Your task to perform on an android device: Open Yahoo.com Image 0: 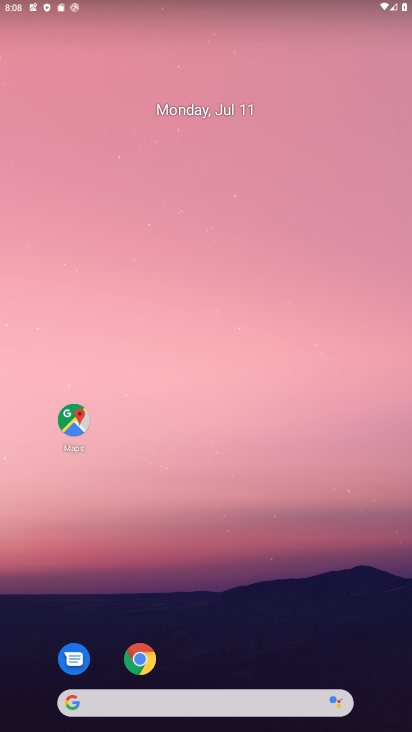
Step 0: drag from (171, 666) to (259, 184)
Your task to perform on an android device: Open Yahoo.com Image 1: 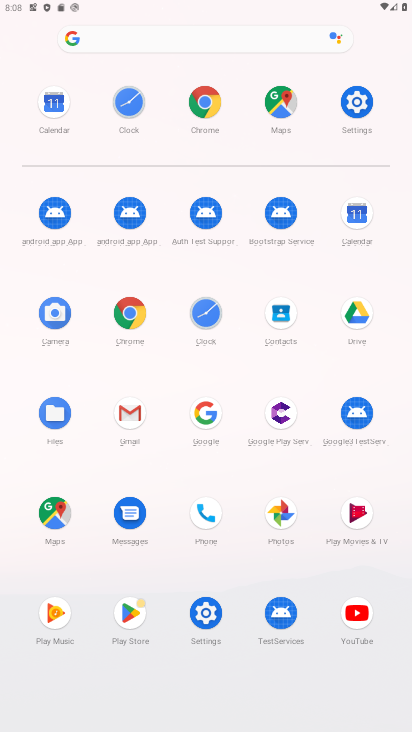
Step 1: click (198, 98)
Your task to perform on an android device: Open Yahoo.com Image 2: 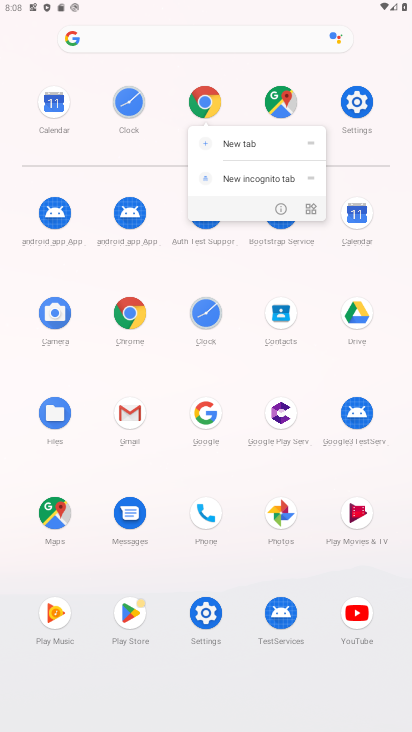
Step 2: click (283, 212)
Your task to perform on an android device: Open Yahoo.com Image 3: 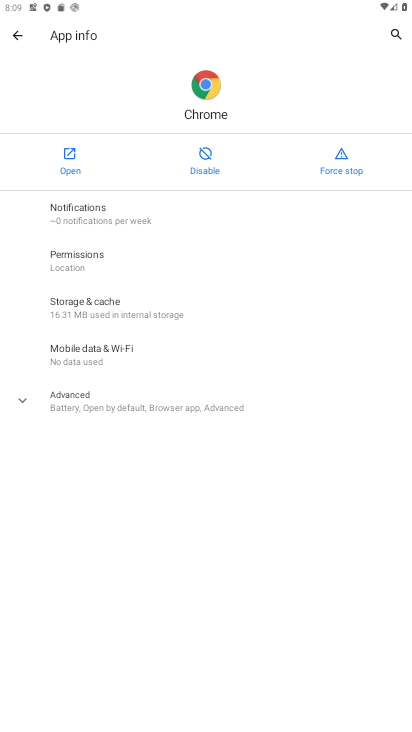
Step 3: click (63, 161)
Your task to perform on an android device: Open Yahoo.com Image 4: 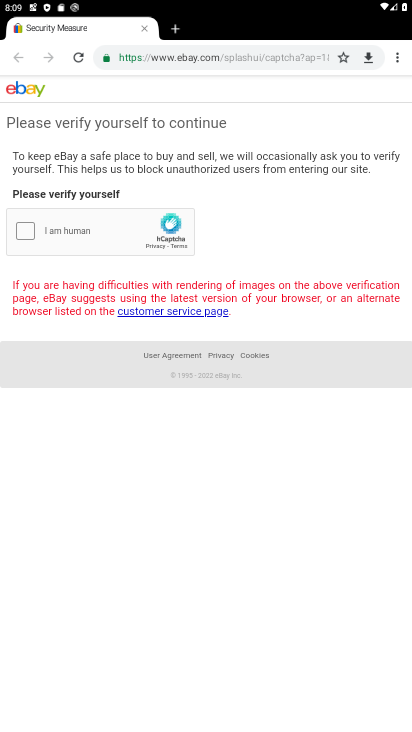
Step 4: drag from (200, 431) to (224, 146)
Your task to perform on an android device: Open Yahoo.com Image 5: 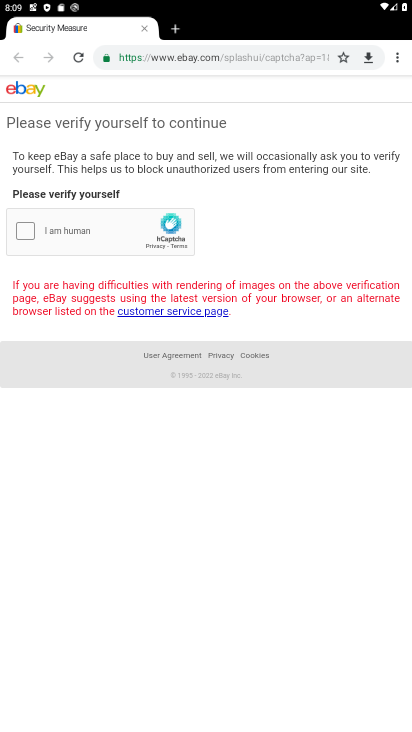
Step 5: drag from (205, 169) to (261, 502)
Your task to perform on an android device: Open Yahoo.com Image 6: 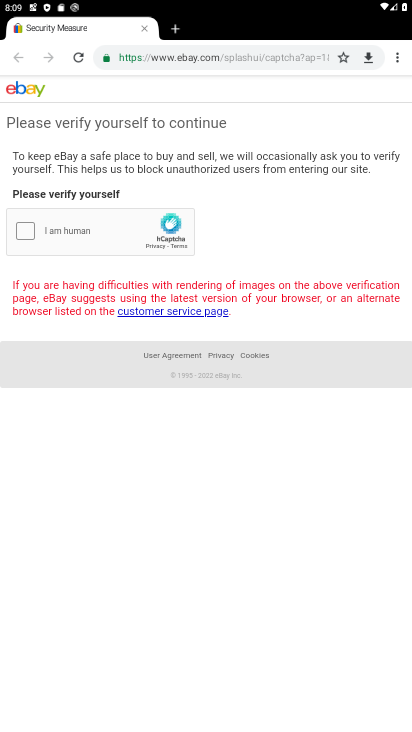
Step 6: click (177, 24)
Your task to perform on an android device: Open Yahoo.com Image 7: 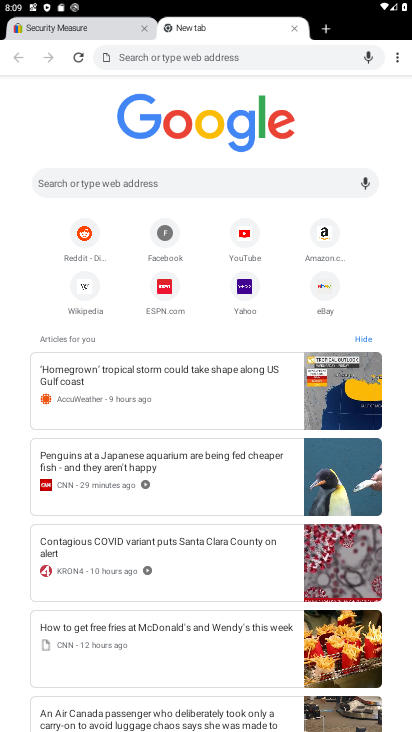
Step 7: click (249, 290)
Your task to perform on an android device: Open Yahoo.com Image 8: 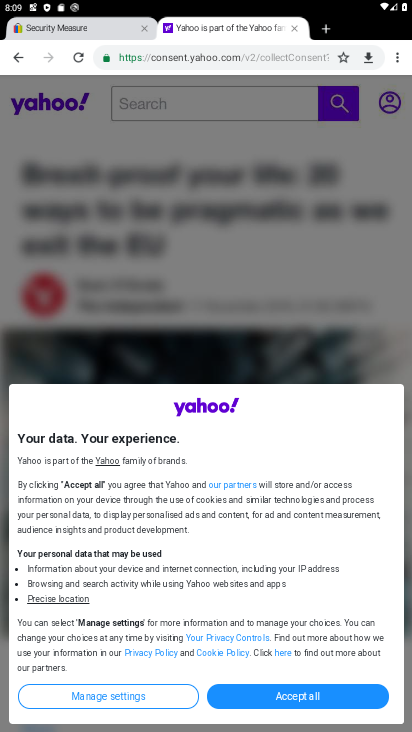
Step 8: task complete